Your task to perform on an android device: Open Google Maps Image 0: 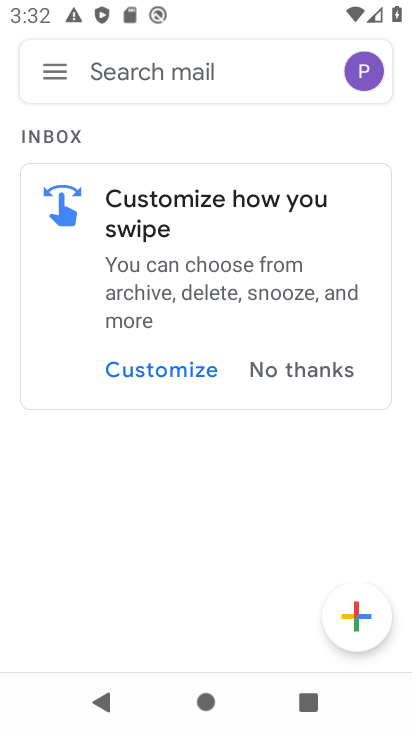
Step 0: press home button
Your task to perform on an android device: Open Google Maps Image 1: 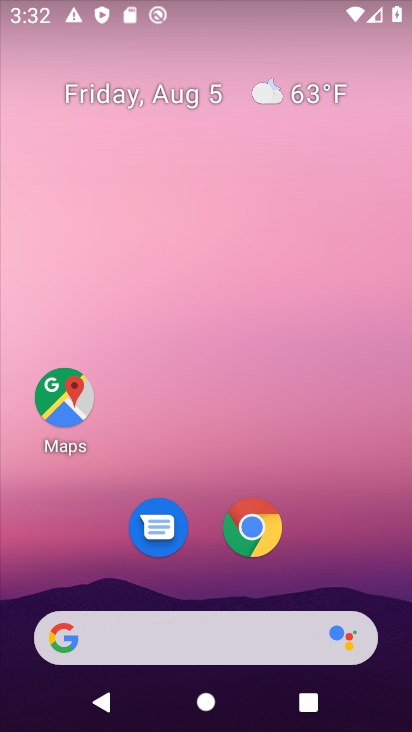
Step 1: drag from (213, 597) to (232, 113)
Your task to perform on an android device: Open Google Maps Image 2: 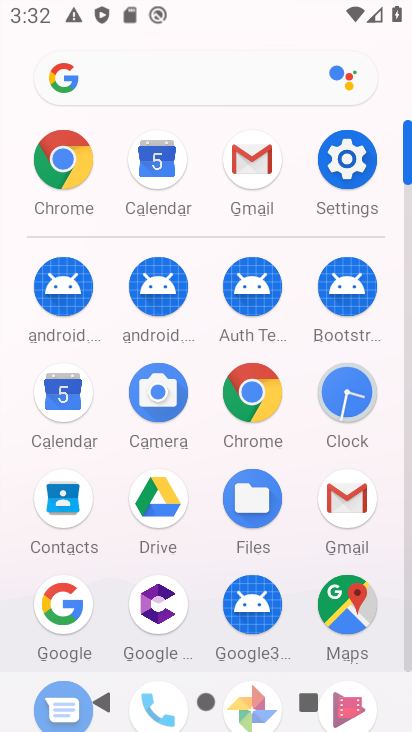
Step 2: click (346, 607)
Your task to perform on an android device: Open Google Maps Image 3: 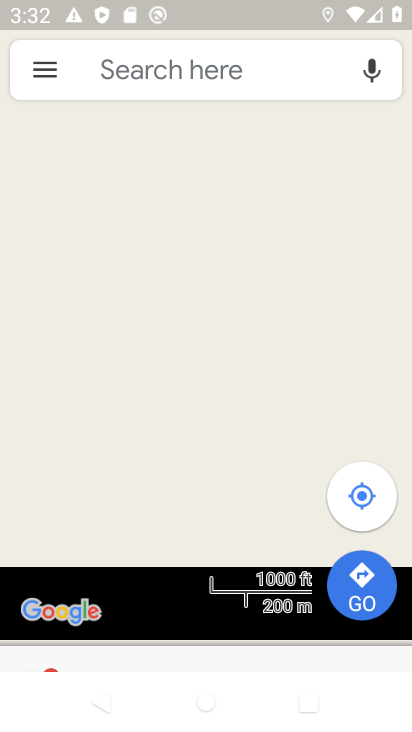
Step 3: task complete